Your task to perform on an android device: change your default location settings in chrome Image 0: 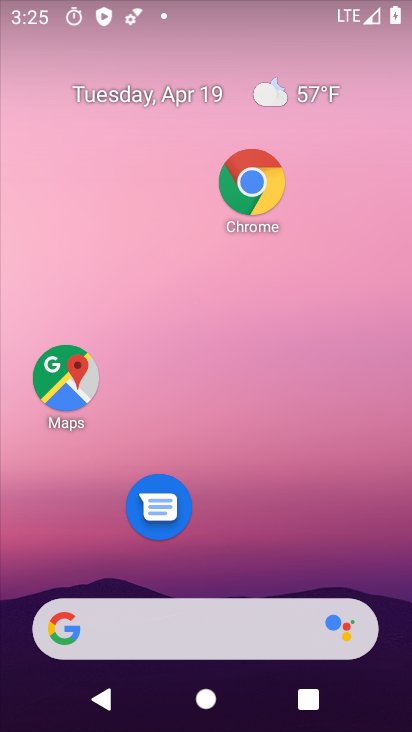
Step 0: drag from (339, 436) to (402, 24)
Your task to perform on an android device: change your default location settings in chrome Image 1: 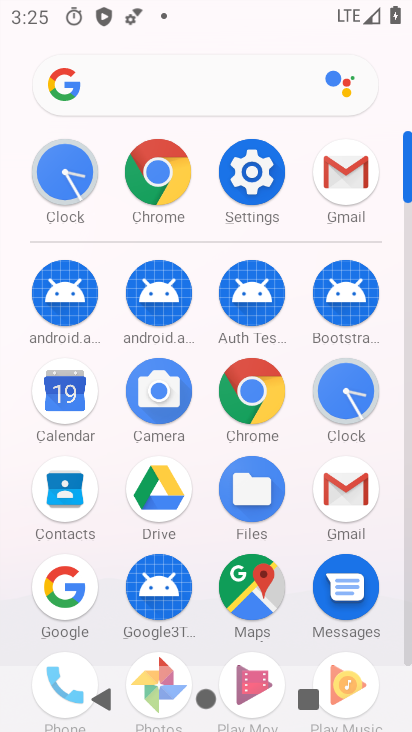
Step 1: click (261, 414)
Your task to perform on an android device: change your default location settings in chrome Image 2: 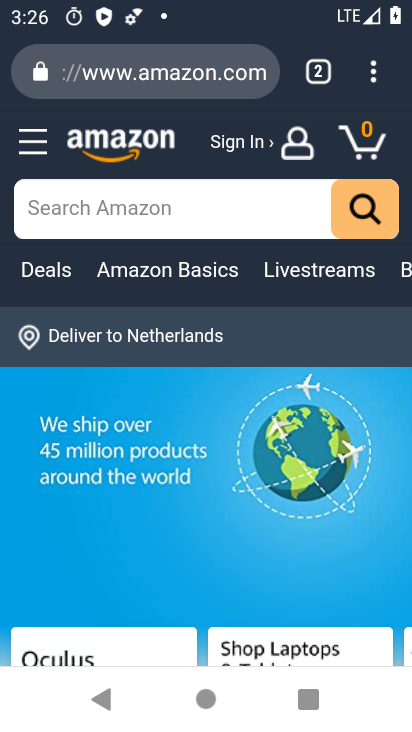
Step 2: click (368, 94)
Your task to perform on an android device: change your default location settings in chrome Image 3: 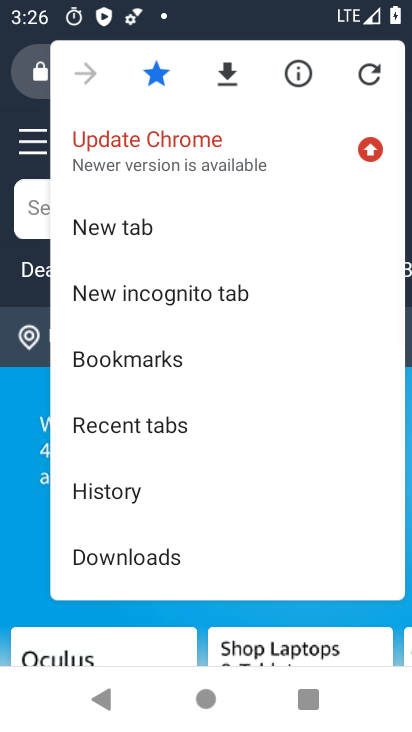
Step 3: drag from (240, 510) to (299, 283)
Your task to perform on an android device: change your default location settings in chrome Image 4: 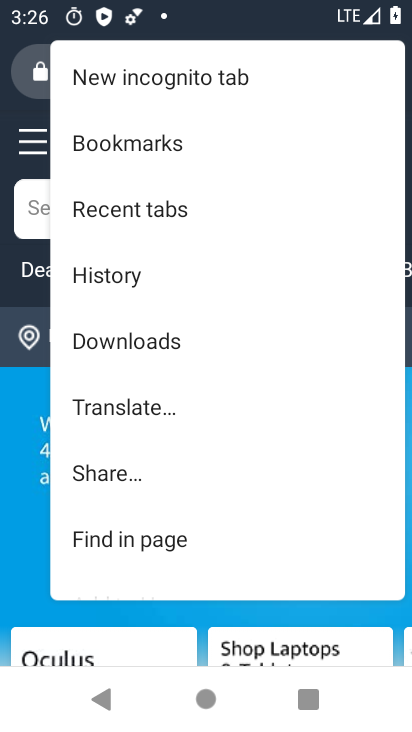
Step 4: drag from (225, 502) to (292, 234)
Your task to perform on an android device: change your default location settings in chrome Image 5: 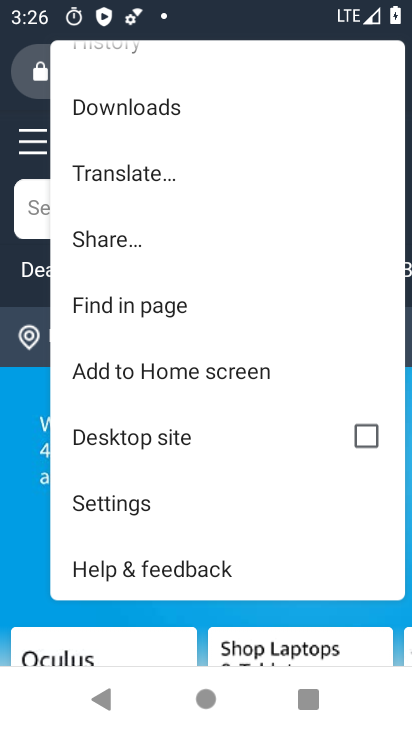
Step 5: click (166, 504)
Your task to perform on an android device: change your default location settings in chrome Image 6: 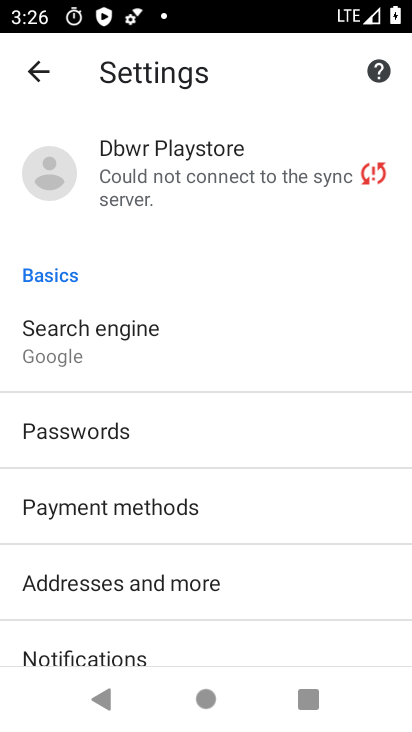
Step 6: drag from (182, 515) to (246, 247)
Your task to perform on an android device: change your default location settings in chrome Image 7: 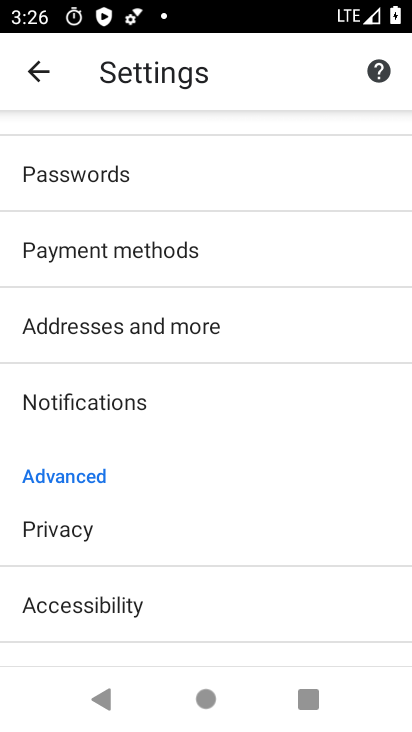
Step 7: drag from (174, 544) to (233, 360)
Your task to perform on an android device: change your default location settings in chrome Image 8: 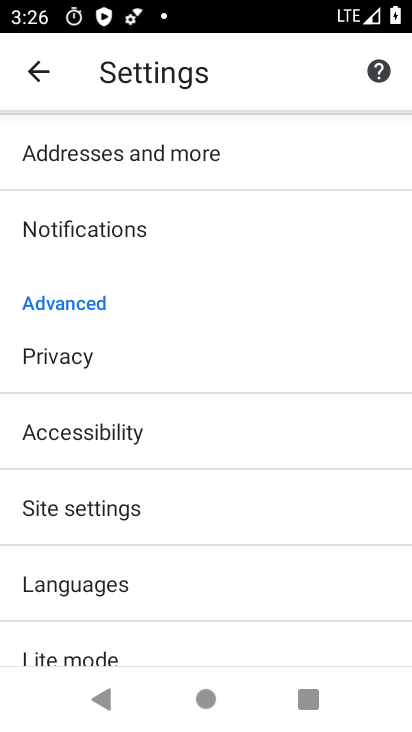
Step 8: click (149, 516)
Your task to perform on an android device: change your default location settings in chrome Image 9: 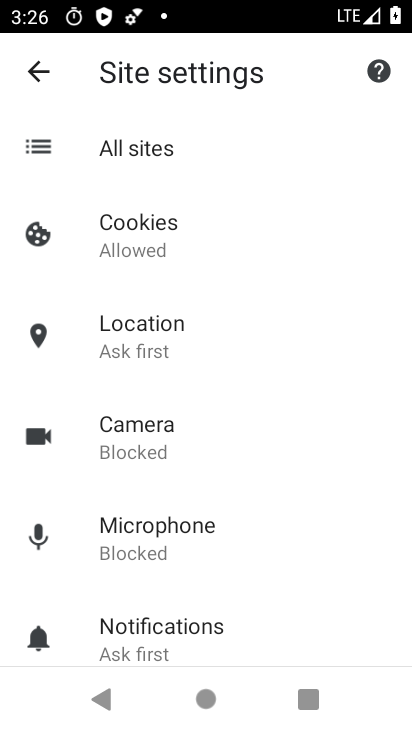
Step 9: click (197, 348)
Your task to perform on an android device: change your default location settings in chrome Image 10: 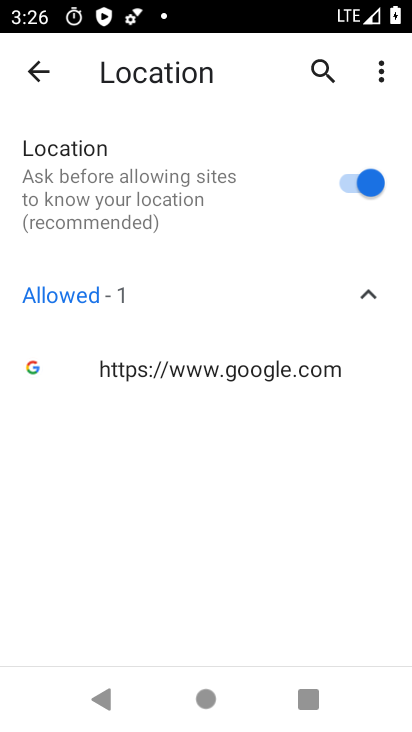
Step 10: click (361, 185)
Your task to perform on an android device: change your default location settings in chrome Image 11: 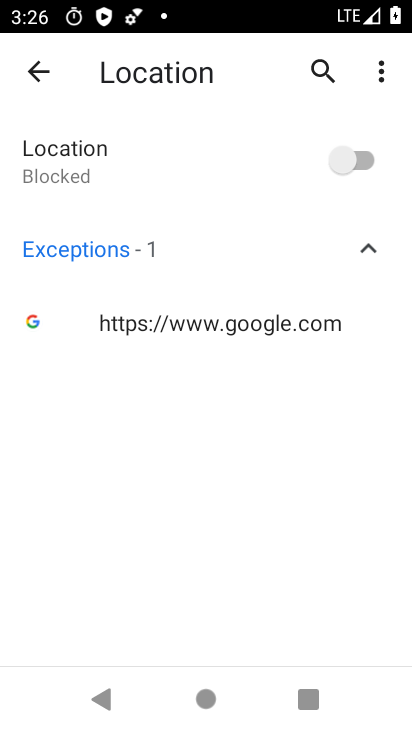
Step 11: task complete